Your task to perform on an android device: Open ESPN.com Image 0: 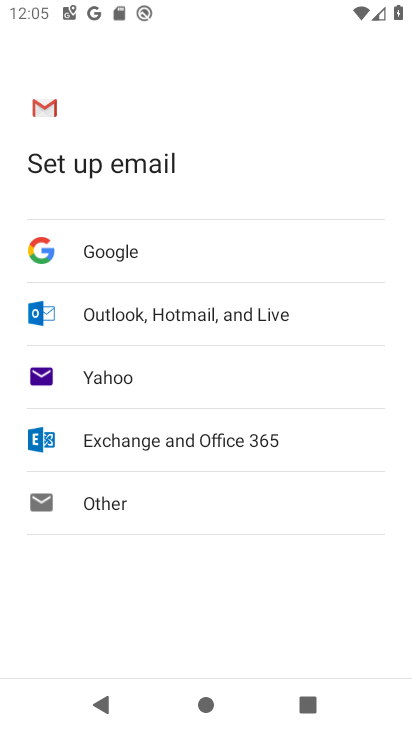
Step 0: press home button
Your task to perform on an android device: Open ESPN.com Image 1: 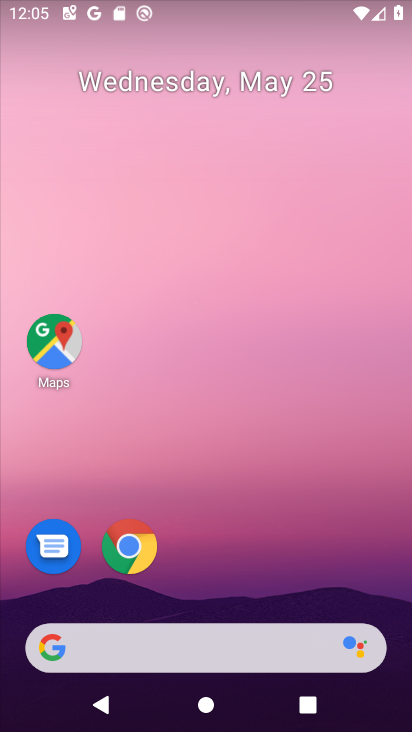
Step 1: click (115, 547)
Your task to perform on an android device: Open ESPN.com Image 2: 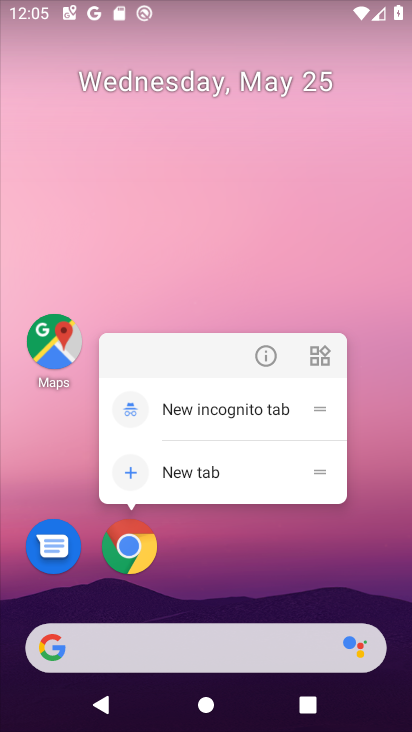
Step 2: click (139, 552)
Your task to perform on an android device: Open ESPN.com Image 3: 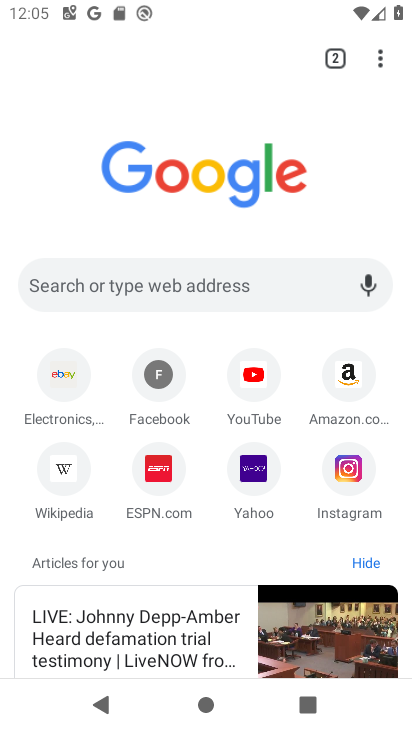
Step 3: click (160, 481)
Your task to perform on an android device: Open ESPN.com Image 4: 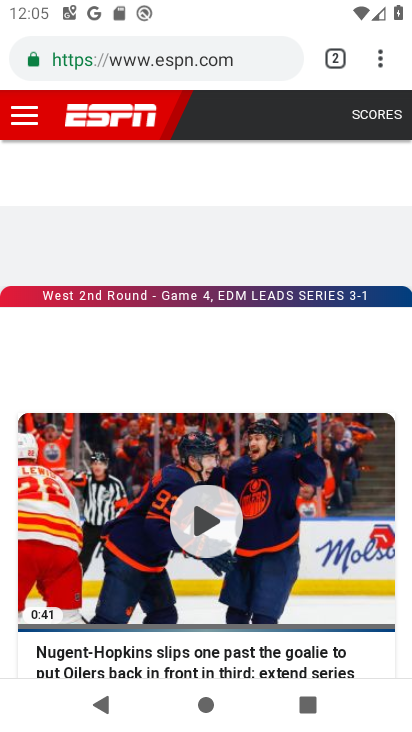
Step 4: task complete